Your task to perform on an android device: check data usage Image 0: 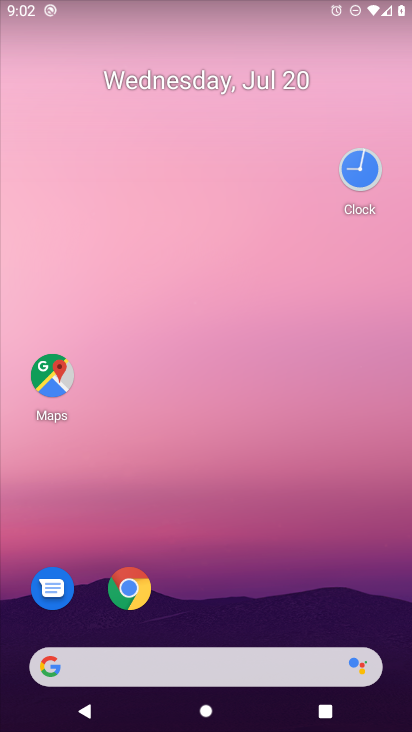
Step 0: drag from (44, 667) to (198, 206)
Your task to perform on an android device: check data usage Image 1: 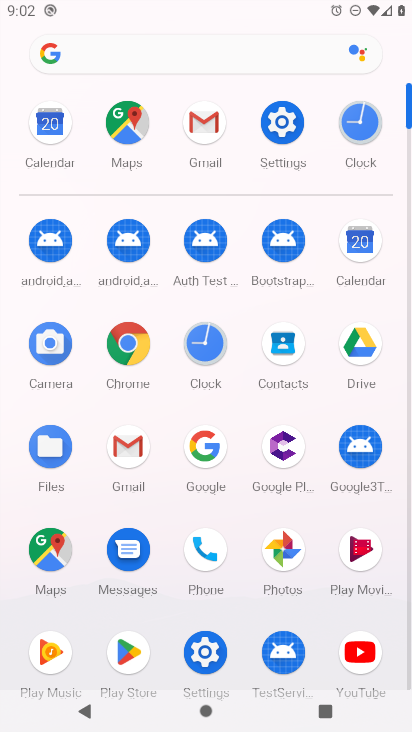
Step 1: click (218, 654)
Your task to perform on an android device: check data usage Image 2: 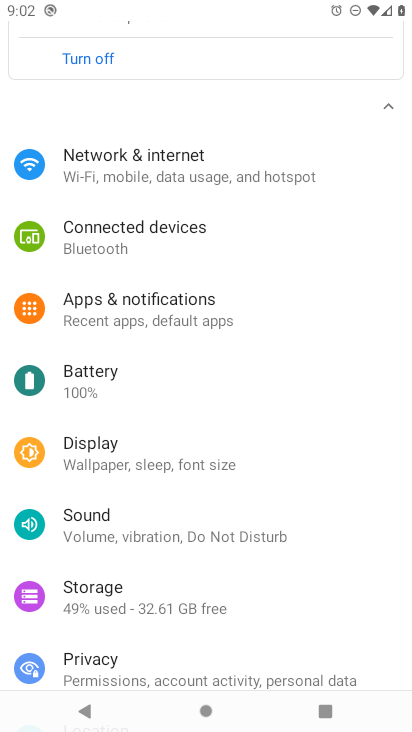
Step 2: click (159, 170)
Your task to perform on an android device: check data usage Image 3: 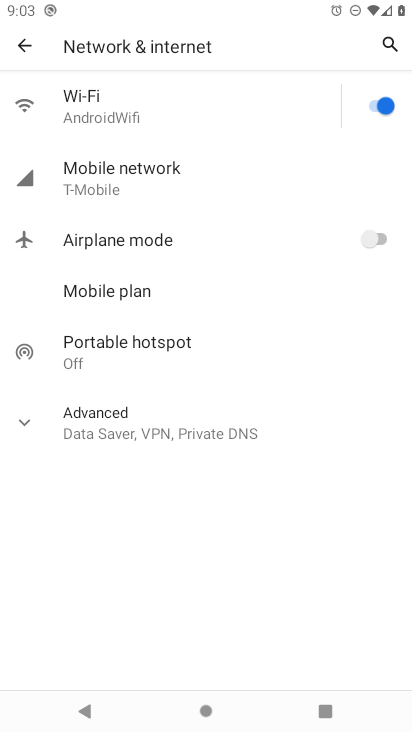
Step 3: click (131, 169)
Your task to perform on an android device: check data usage Image 4: 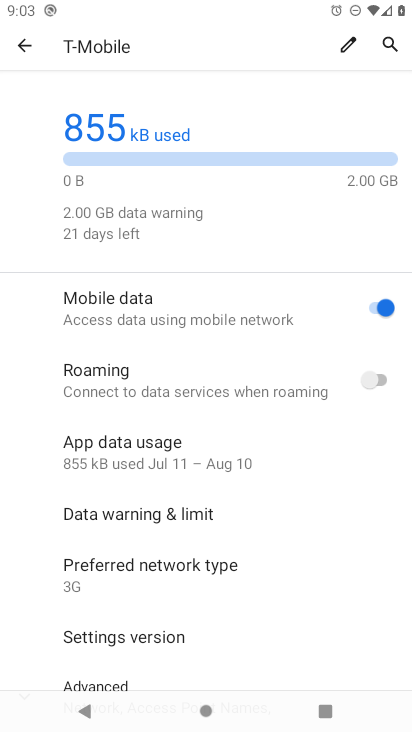
Step 4: task complete